Your task to perform on an android device: turn off sleep mode Image 0: 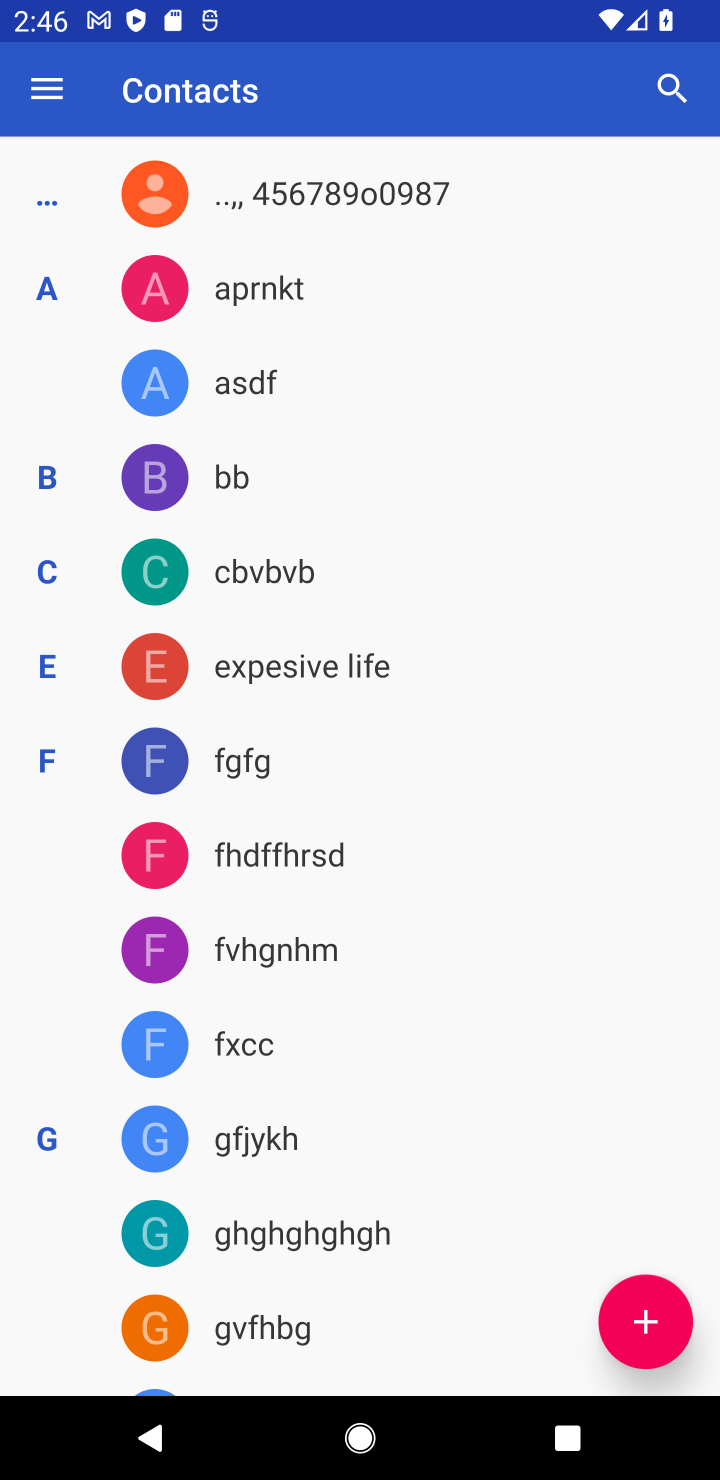
Step 0: press home button
Your task to perform on an android device: turn off sleep mode Image 1: 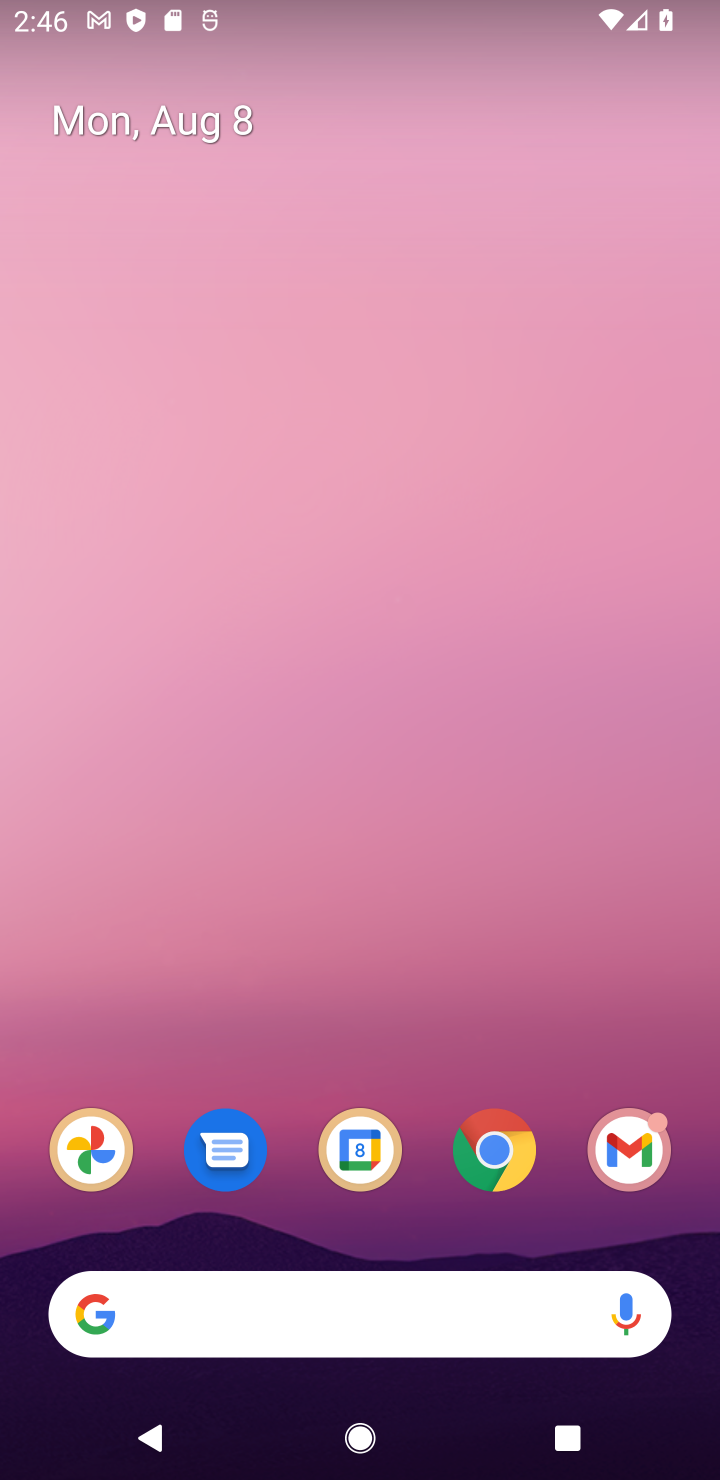
Step 1: drag from (419, 1234) to (513, 12)
Your task to perform on an android device: turn off sleep mode Image 2: 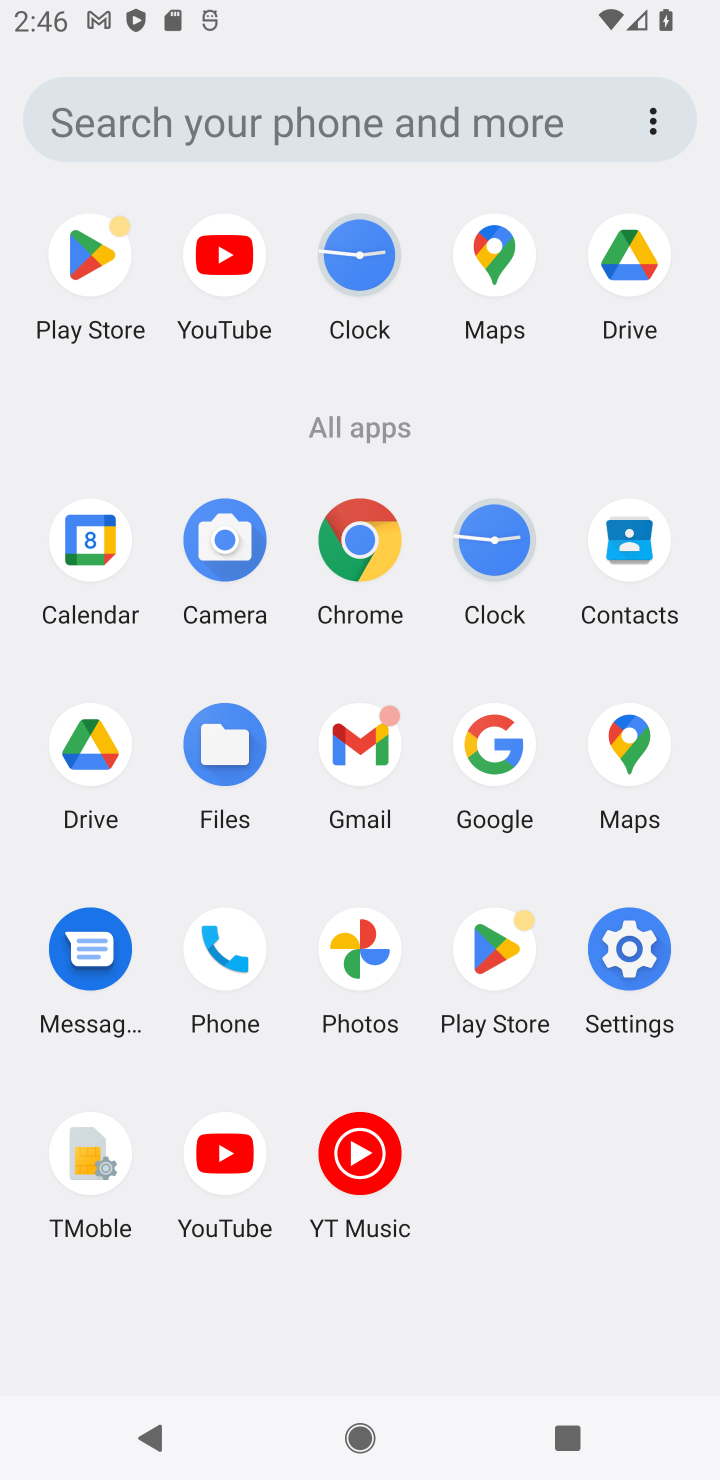
Step 2: click (674, 986)
Your task to perform on an android device: turn off sleep mode Image 3: 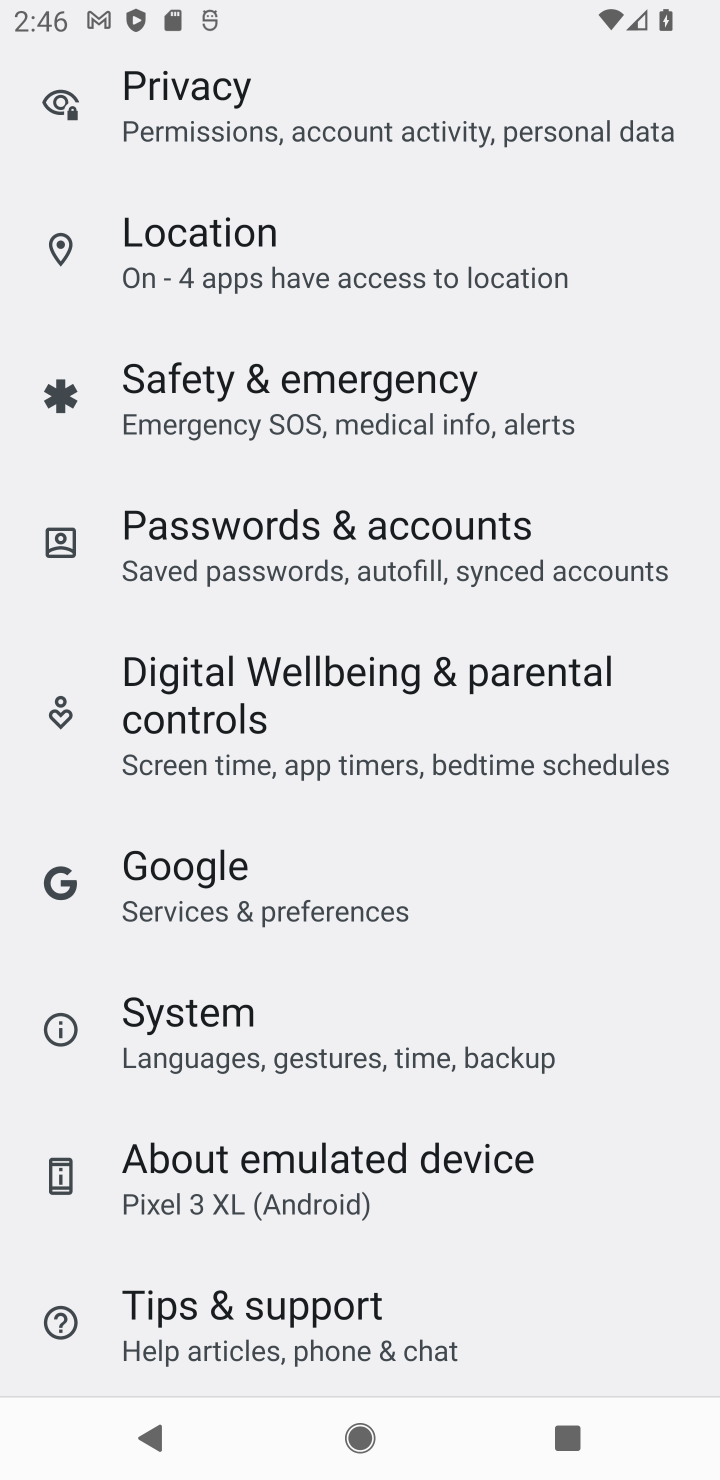
Step 3: task complete